Your task to perform on an android device: Show me the alarms in the clock app Image 0: 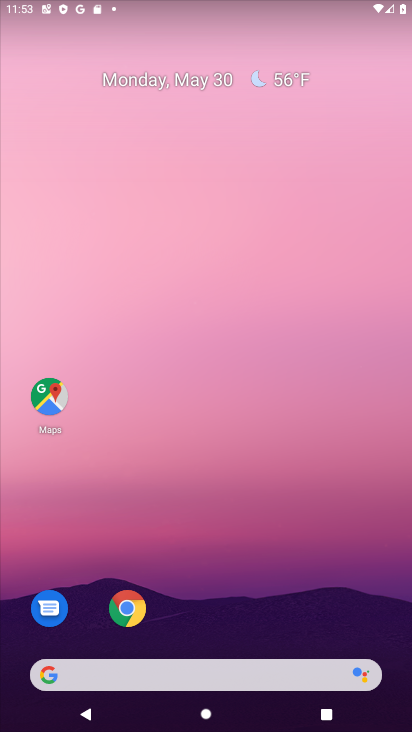
Step 0: drag from (207, 621) to (249, 132)
Your task to perform on an android device: Show me the alarms in the clock app Image 1: 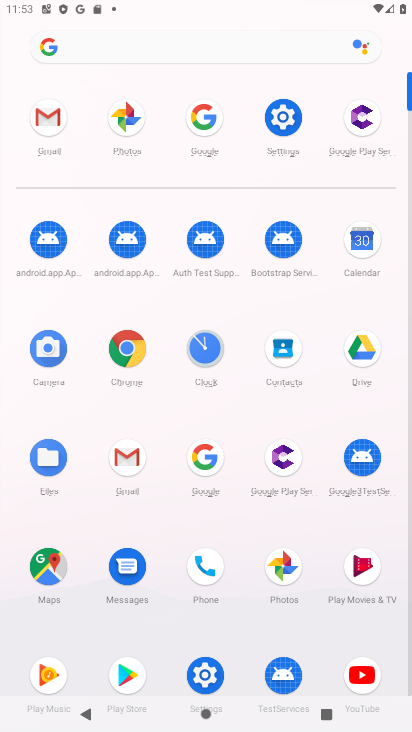
Step 1: click (205, 345)
Your task to perform on an android device: Show me the alarms in the clock app Image 2: 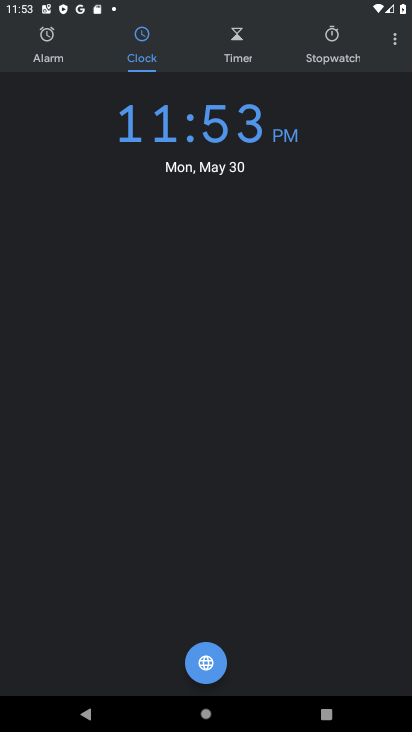
Step 2: click (44, 51)
Your task to perform on an android device: Show me the alarms in the clock app Image 3: 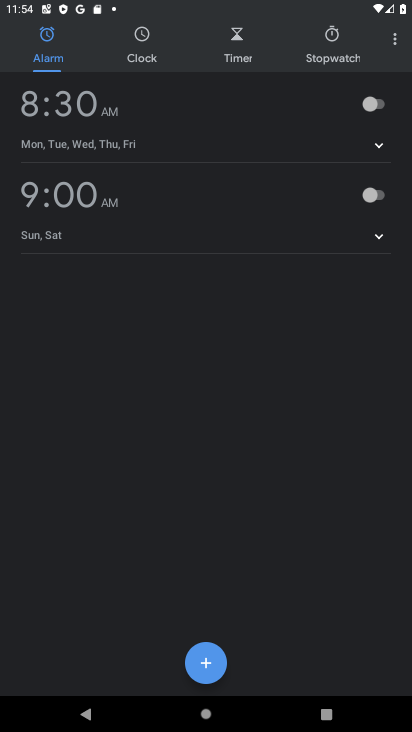
Step 3: task complete